Your task to perform on an android device: Open calendar and show me the fourth week of next month Image 0: 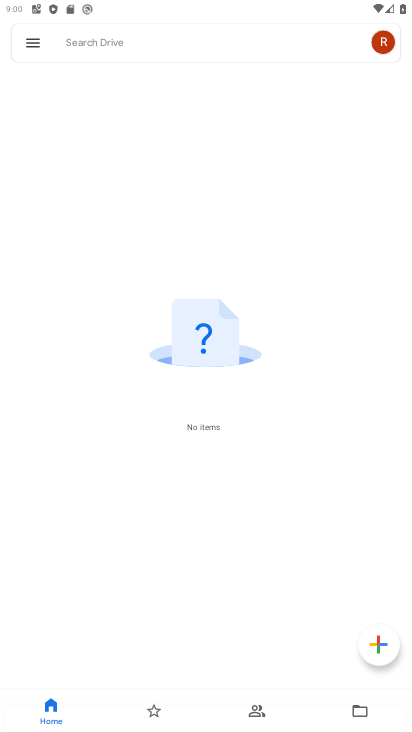
Step 0: press home button
Your task to perform on an android device: Open calendar and show me the fourth week of next month Image 1: 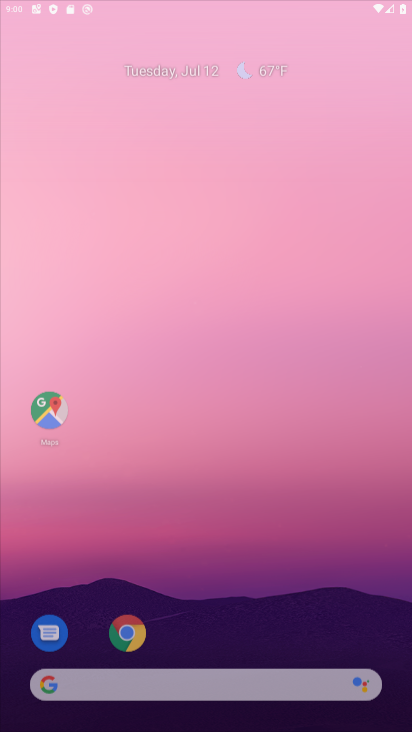
Step 1: drag from (203, 631) to (270, 341)
Your task to perform on an android device: Open calendar and show me the fourth week of next month Image 2: 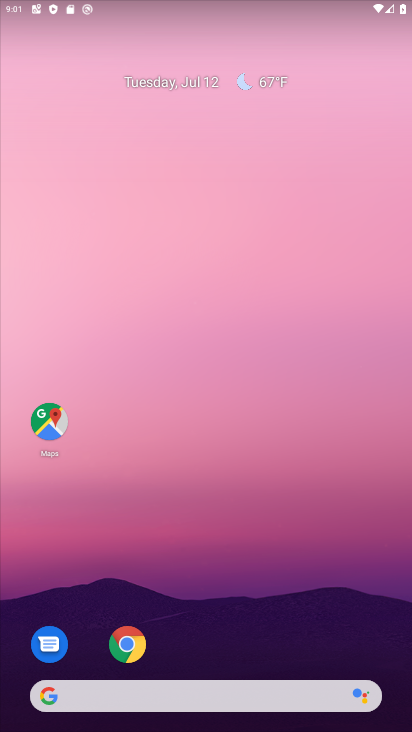
Step 2: drag from (227, 532) to (268, 186)
Your task to perform on an android device: Open calendar and show me the fourth week of next month Image 3: 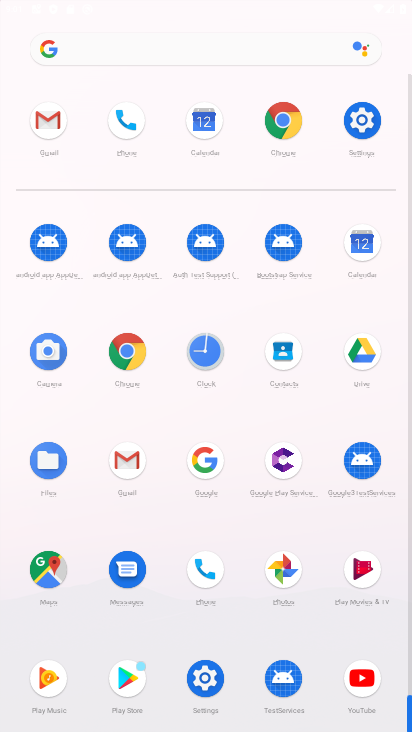
Step 3: click (350, 362)
Your task to perform on an android device: Open calendar and show me the fourth week of next month Image 4: 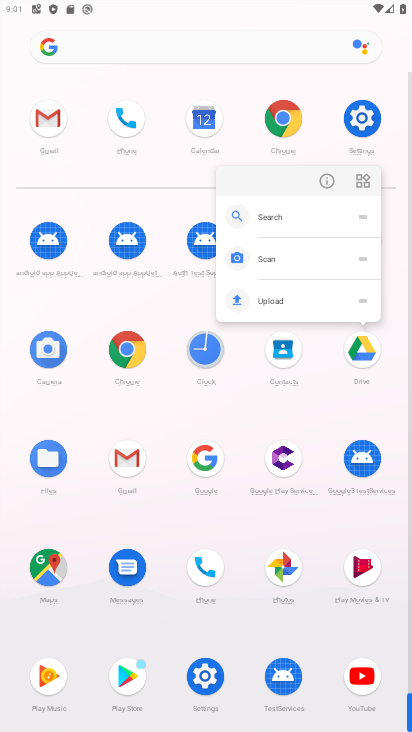
Step 4: click (400, 264)
Your task to perform on an android device: Open calendar and show me the fourth week of next month Image 5: 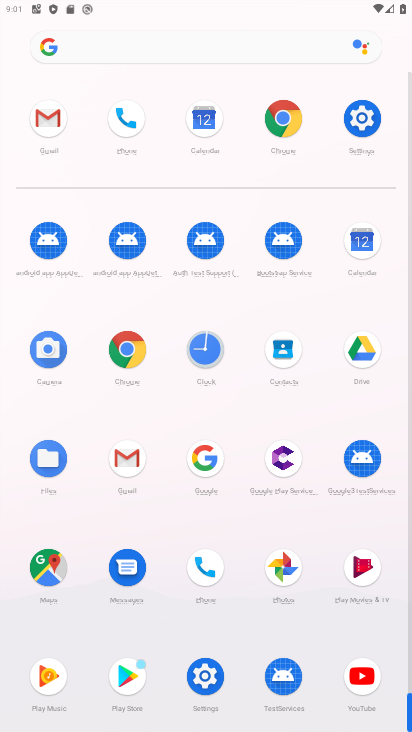
Step 5: click (366, 237)
Your task to perform on an android device: Open calendar and show me the fourth week of next month Image 6: 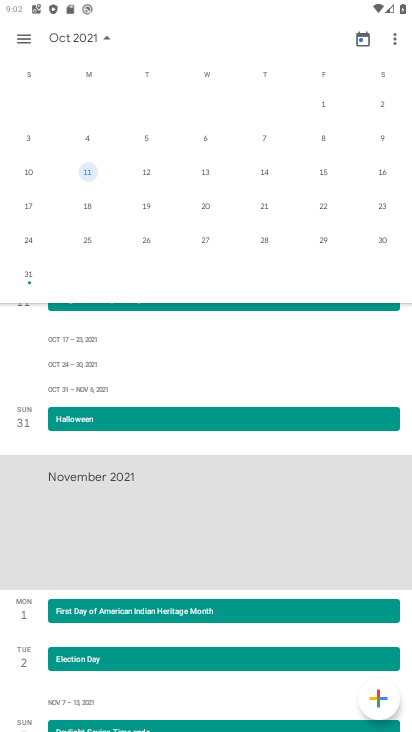
Step 6: drag from (233, 586) to (305, 173)
Your task to perform on an android device: Open calendar and show me the fourth week of next month Image 7: 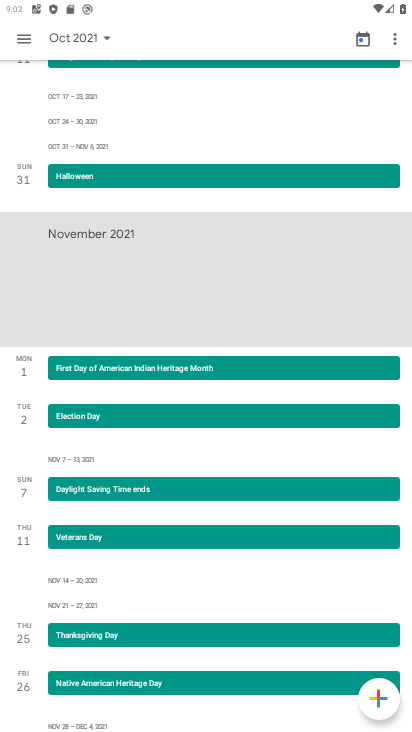
Step 7: drag from (265, 111) to (272, 554)
Your task to perform on an android device: Open calendar and show me the fourth week of next month Image 8: 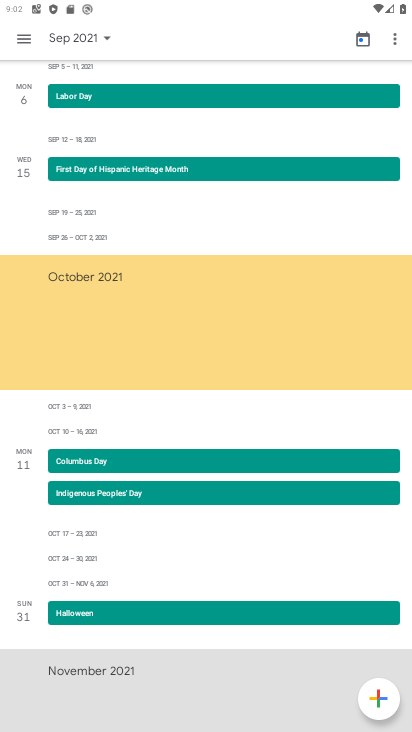
Step 8: click (109, 35)
Your task to perform on an android device: Open calendar and show me the fourth week of next month Image 9: 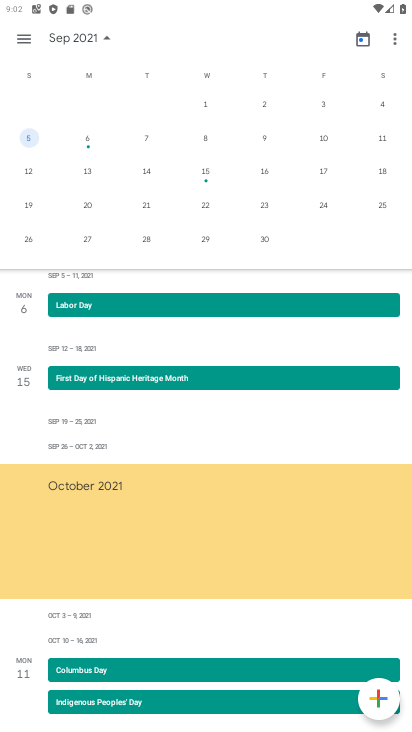
Step 9: drag from (92, 165) to (311, 239)
Your task to perform on an android device: Open calendar and show me the fourth week of next month Image 10: 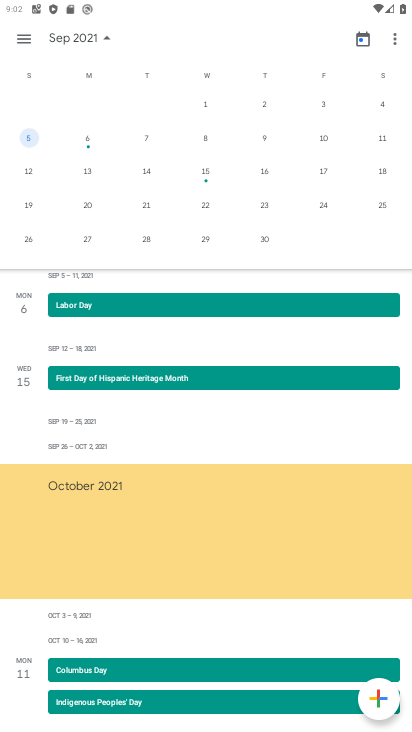
Step 10: drag from (395, 181) to (409, 143)
Your task to perform on an android device: Open calendar and show me the fourth week of next month Image 11: 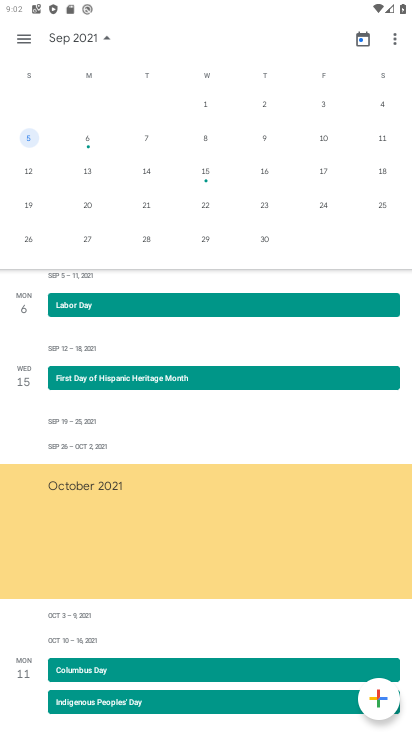
Step 11: drag from (23, 218) to (295, 221)
Your task to perform on an android device: Open calendar and show me the fourth week of next month Image 12: 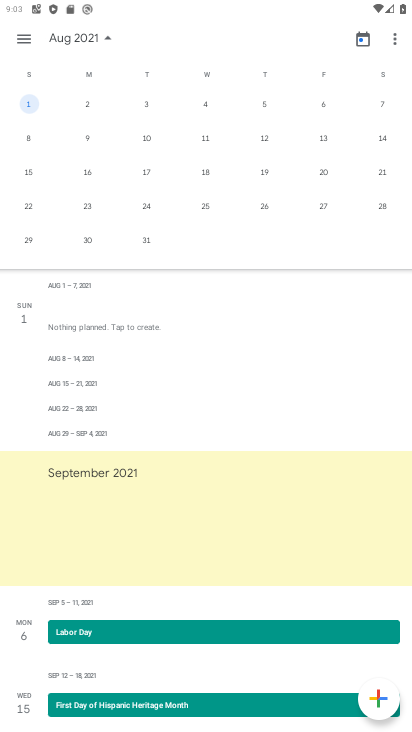
Step 12: drag from (188, 458) to (273, 229)
Your task to perform on an android device: Open calendar and show me the fourth week of next month Image 13: 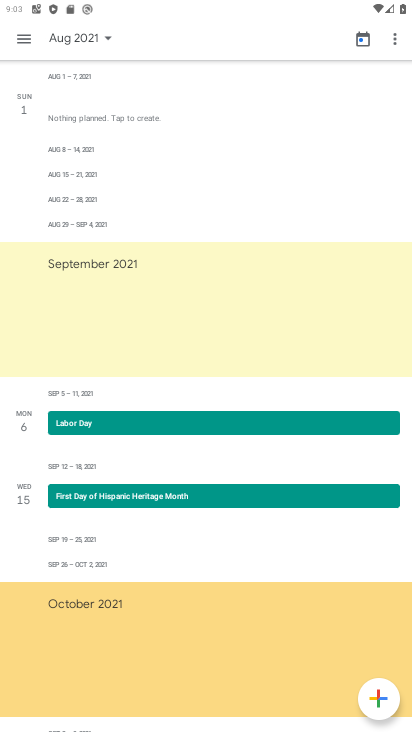
Step 13: drag from (263, 176) to (357, 127)
Your task to perform on an android device: Open calendar and show me the fourth week of next month Image 14: 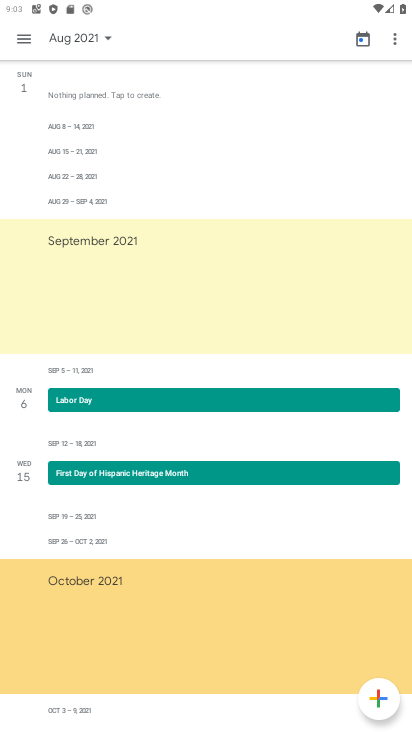
Step 14: drag from (193, 533) to (317, 160)
Your task to perform on an android device: Open calendar and show me the fourth week of next month Image 15: 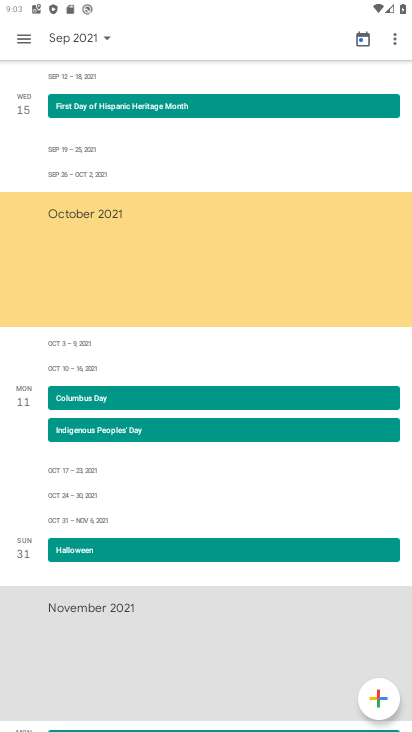
Step 15: click (99, 42)
Your task to perform on an android device: Open calendar and show me the fourth week of next month Image 16: 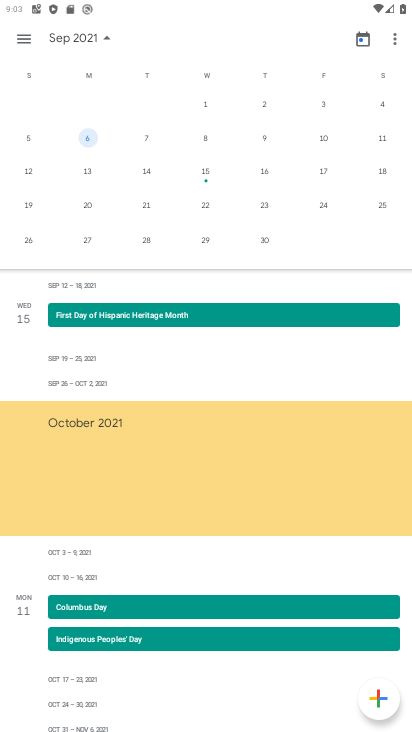
Step 16: drag from (34, 219) to (407, 170)
Your task to perform on an android device: Open calendar and show me the fourth week of next month Image 17: 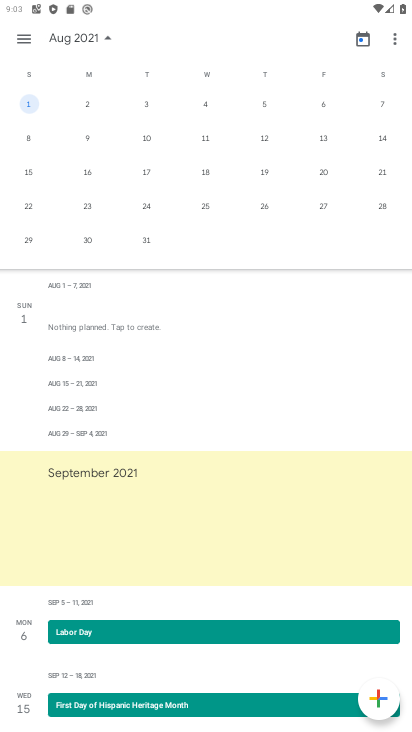
Step 17: click (318, 203)
Your task to perform on an android device: Open calendar and show me the fourth week of next month Image 18: 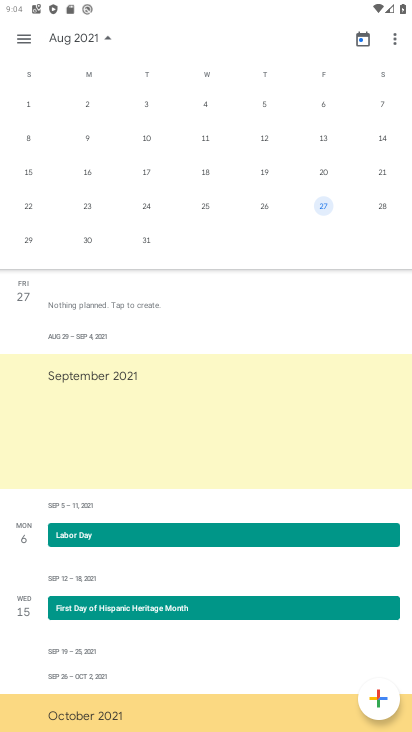
Step 18: task complete